Your task to perform on an android device: Open sound settings Image 0: 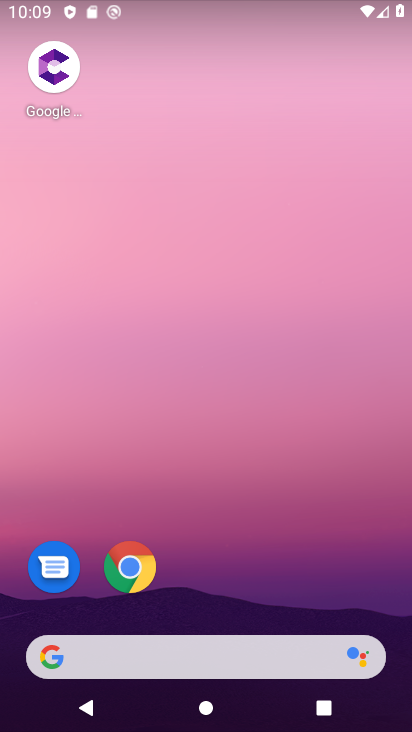
Step 0: drag from (126, 655) to (193, 1)
Your task to perform on an android device: Open sound settings Image 1: 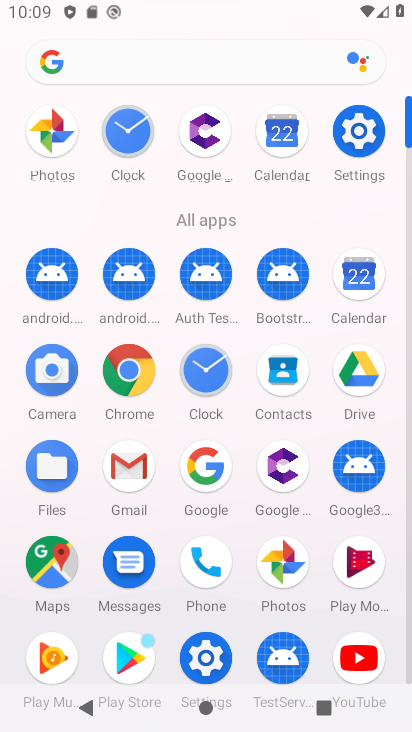
Step 1: click (337, 136)
Your task to perform on an android device: Open sound settings Image 2: 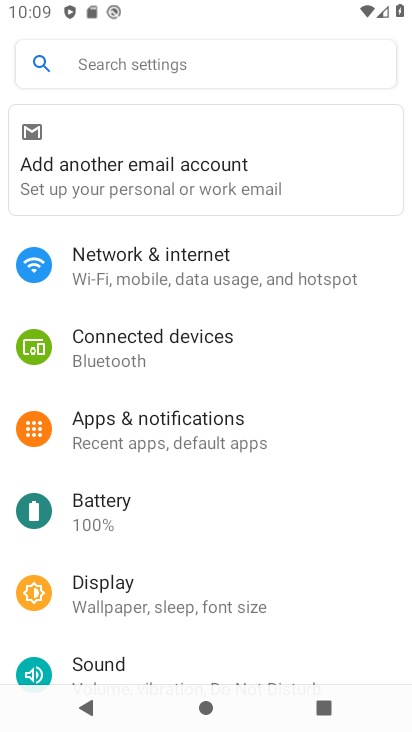
Step 2: click (103, 659)
Your task to perform on an android device: Open sound settings Image 3: 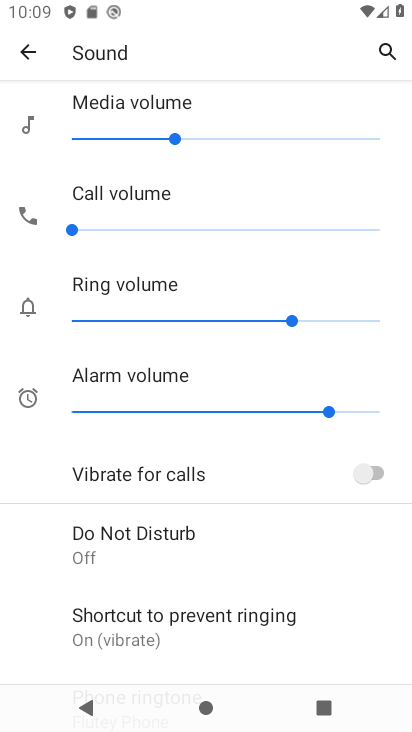
Step 3: task complete